Your task to perform on an android device: What's the weather going to be tomorrow? Image 0: 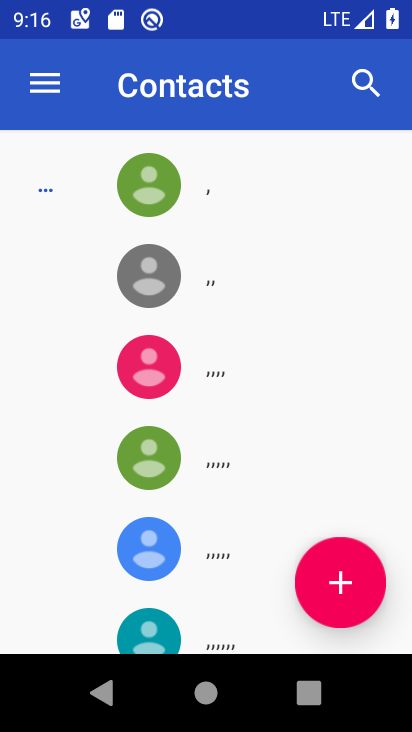
Step 0: press home button
Your task to perform on an android device: What's the weather going to be tomorrow? Image 1: 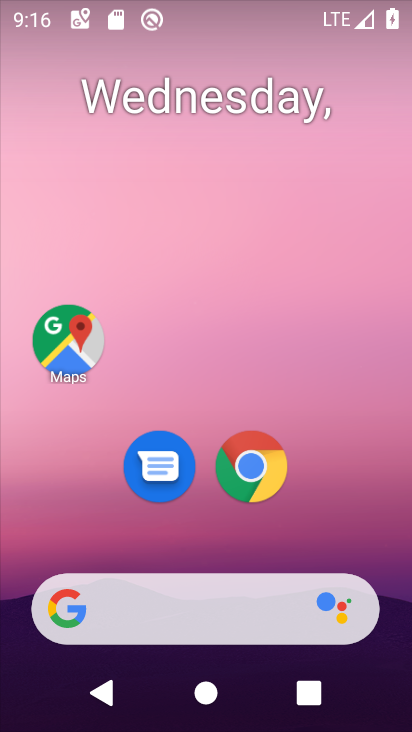
Step 1: drag from (180, 711) to (157, 201)
Your task to perform on an android device: What's the weather going to be tomorrow? Image 2: 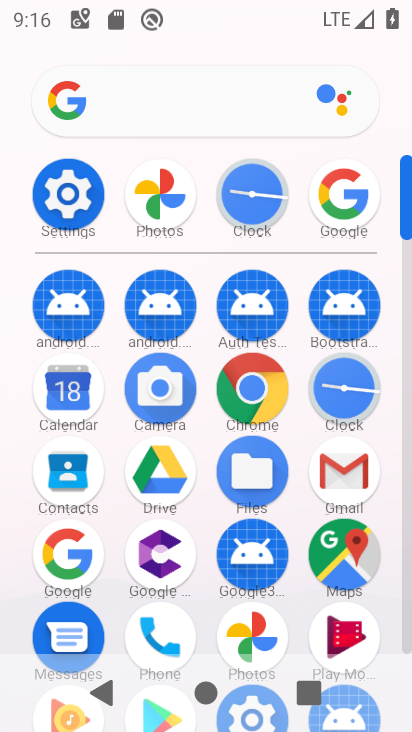
Step 2: click (70, 539)
Your task to perform on an android device: What's the weather going to be tomorrow? Image 3: 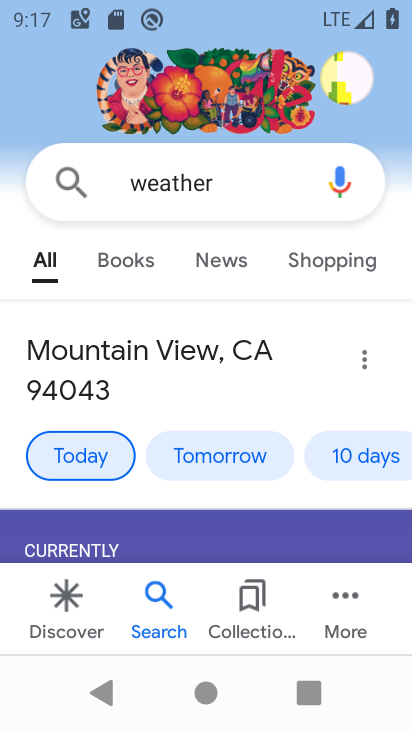
Step 3: click (237, 461)
Your task to perform on an android device: What's the weather going to be tomorrow? Image 4: 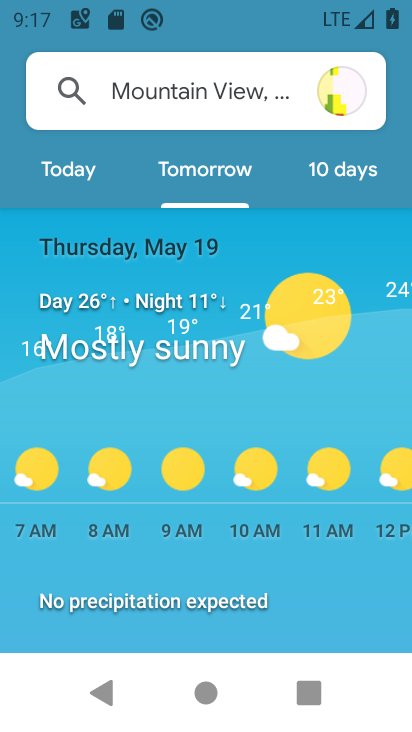
Step 4: task complete